Your task to perform on an android device: turn on translation in the chrome app Image 0: 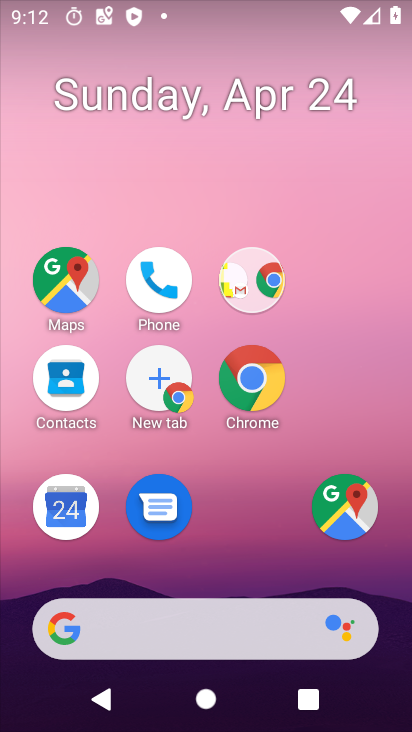
Step 0: drag from (287, 729) to (231, 87)
Your task to perform on an android device: turn on translation in the chrome app Image 1: 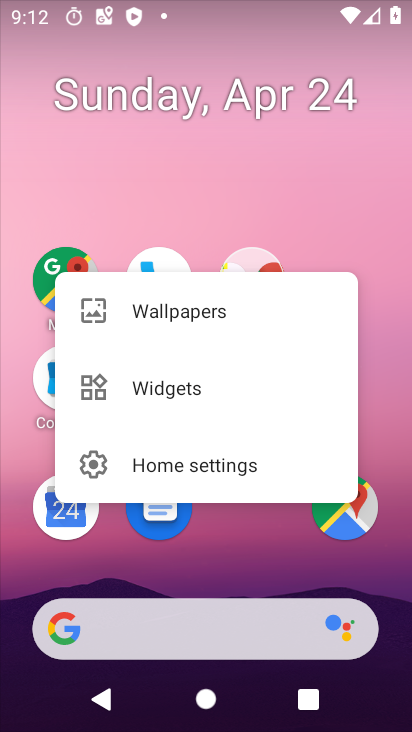
Step 1: click (253, 200)
Your task to perform on an android device: turn on translation in the chrome app Image 2: 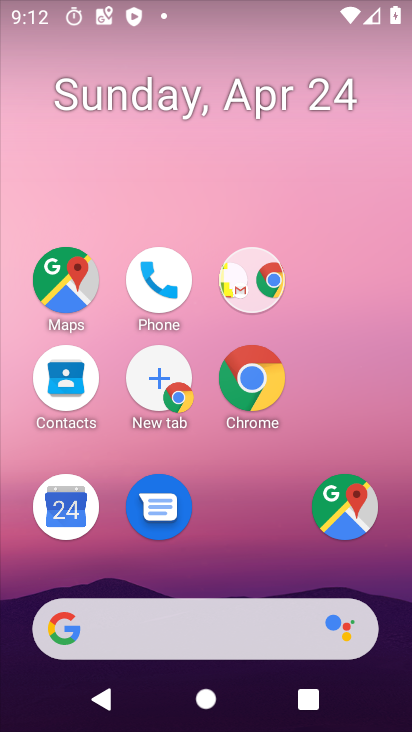
Step 2: click (257, 192)
Your task to perform on an android device: turn on translation in the chrome app Image 3: 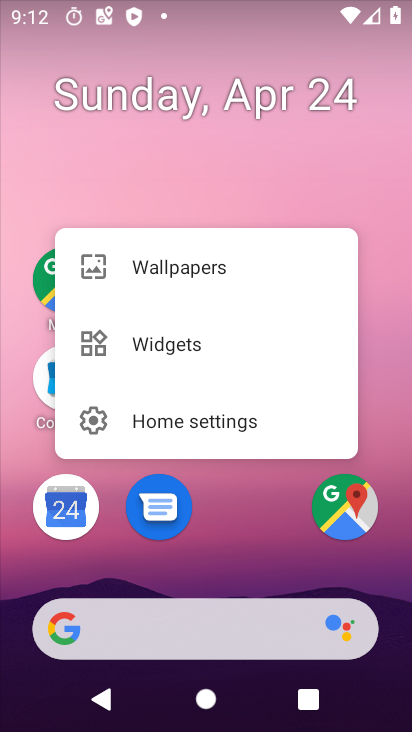
Step 3: drag from (253, 461) to (181, 98)
Your task to perform on an android device: turn on translation in the chrome app Image 4: 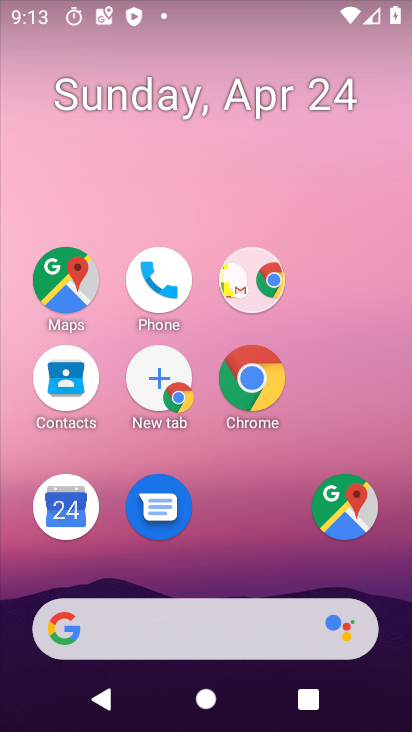
Step 4: drag from (245, 605) to (181, 16)
Your task to perform on an android device: turn on translation in the chrome app Image 5: 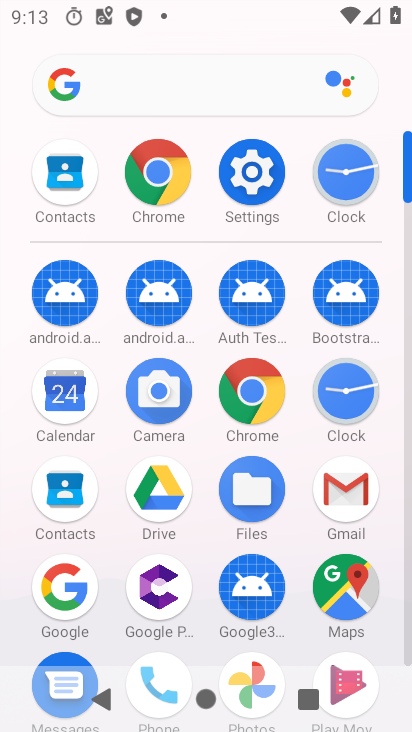
Step 5: click (157, 169)
Your task to perform on an android device: turn on translation in the chrome app Image 6: 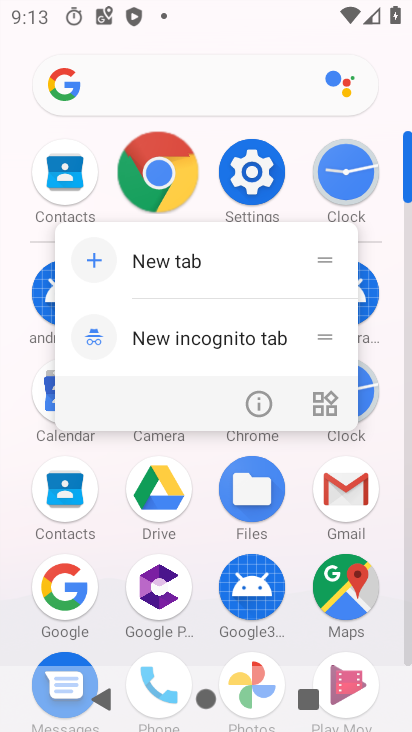
Step 6: click (157, 169)
Your task to perform on an android device: turn on translation in the chrome app Image 7: 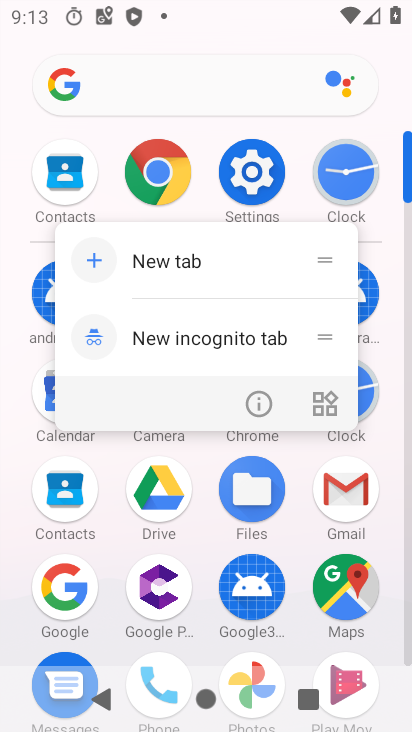
Step 7: click (166, 259)
Your task to perform on an android device: turn on translation in the chrome app Image 8: 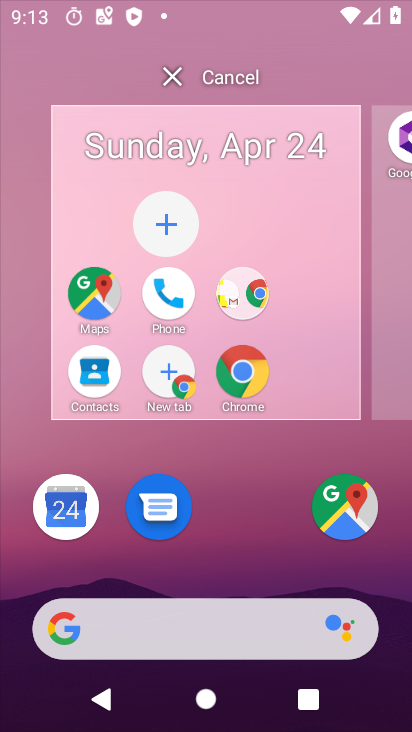
Step 8: click (166, 259)
Your task to perform on an android device: turn on translation in the chrome app Image 9: 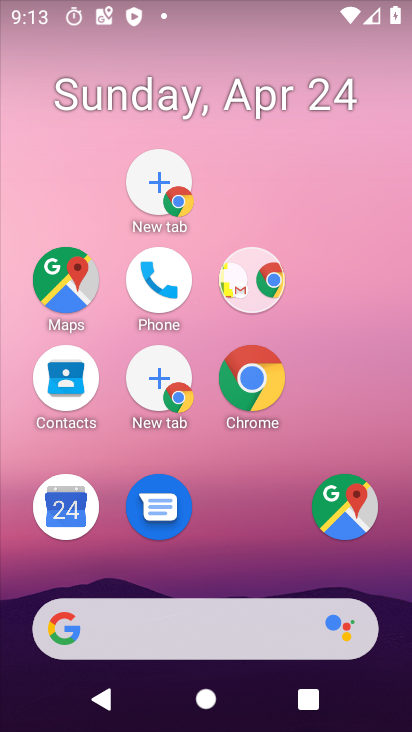
Step 9: drag from (262, 721) to (198, 69)
Your task to perform on an android device: turn on translation in the chrome app Image 10: 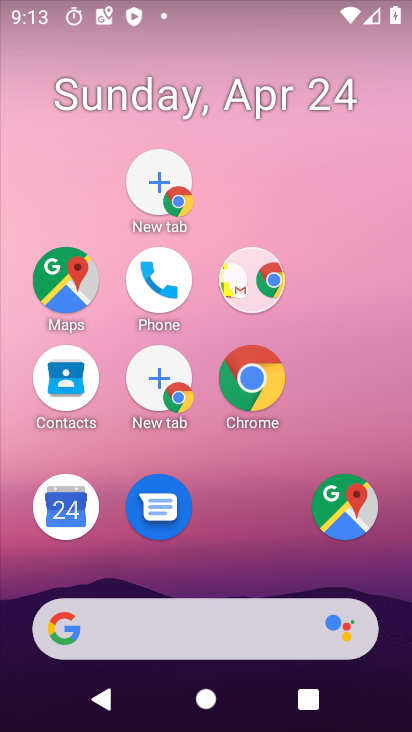
Step 10: drag from (252, 642) to (155, 139)
Your task to perform on an android device: turn on translation in the chrome app Image 11: 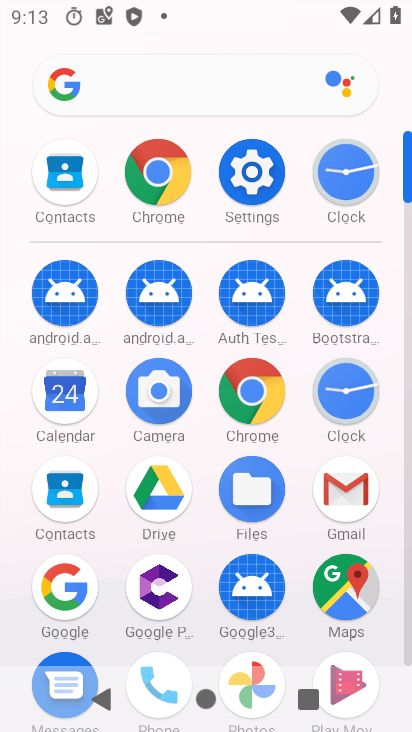
Step 11: click (150, 173)
Your task to perform on an android device: turn on translation in the chrome app Image 12: 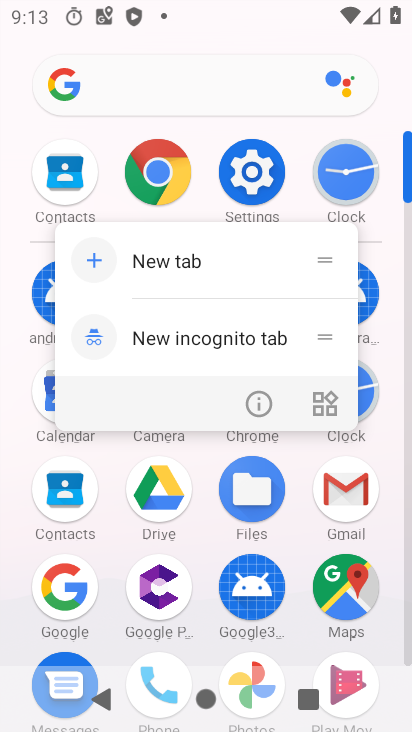
Step 12: click (159, 180)
Your task to perform on an android device: turn on translation in the chrome app Image 13: 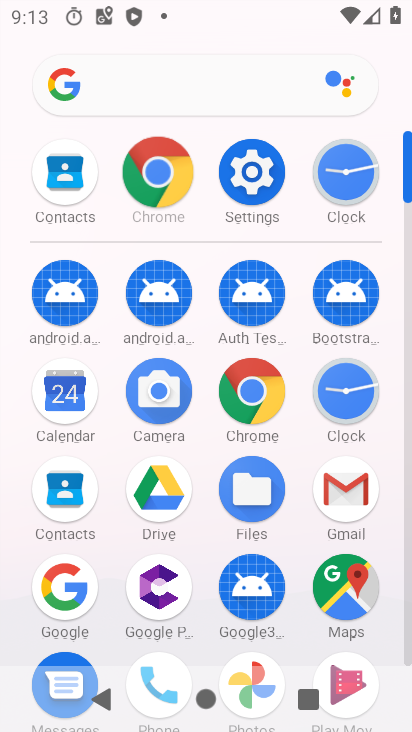
Step 13: click (160, 179)
Your task to perform on an android device: turn on translation in the chrome app Image 14: 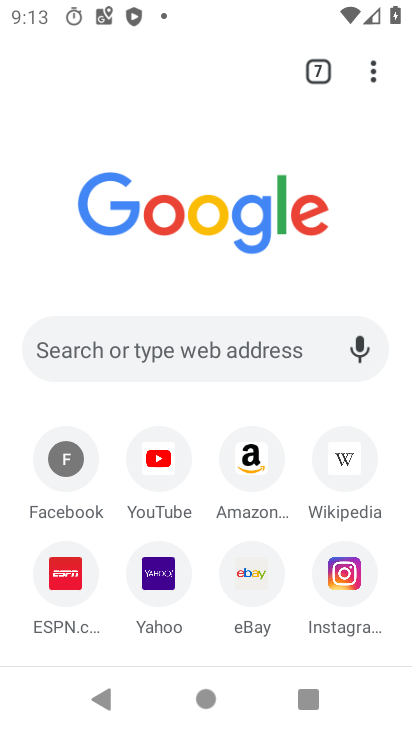
Step 14: drag from (370, 76) to (105, 498)
Your task to perform on an android device: turn on translation in the chrome app Image 15: 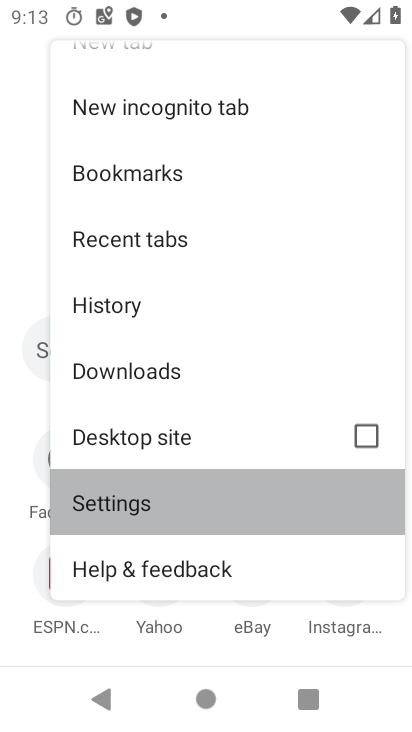
Step 15: click (106, 499)
Your task to perform on an android device: turn on translation in the chrome app Image 16: 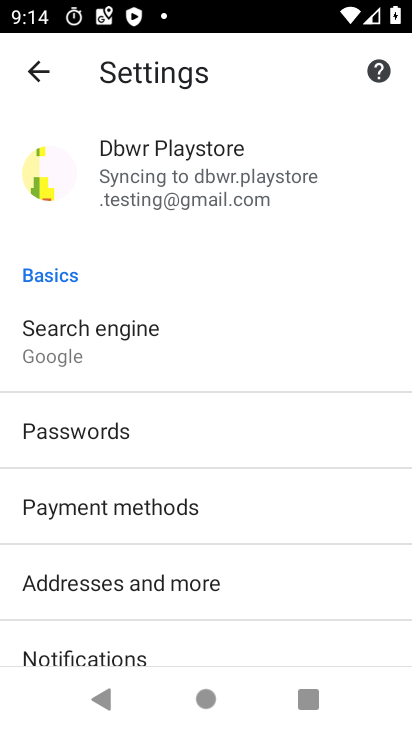
Step 16: drag from (169, 591) to (158, 111)
Your task to perform on an android device: turn on translation in the chrome app Image 17: 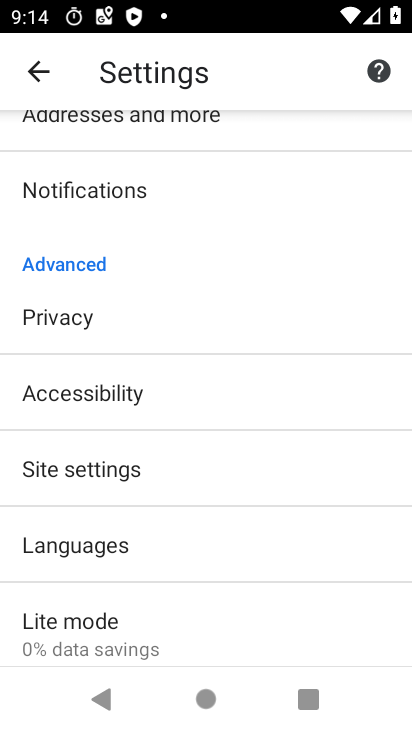
Step 17: click (66, 546)
Your task to perform on an android device: turn on translation in the chrome app Image 18: 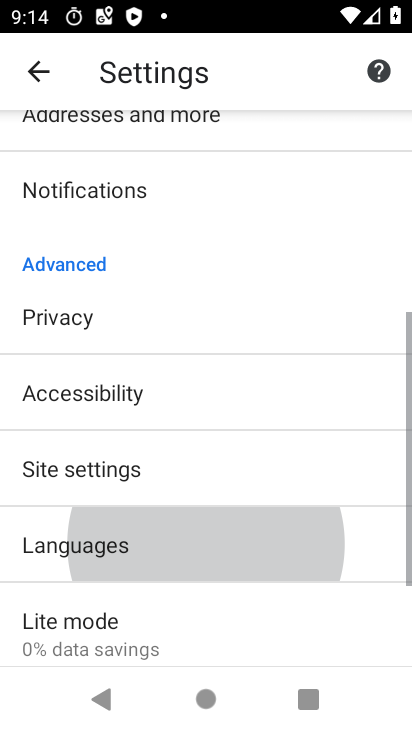
Step 18: click (66, 546)
Your task to perform on an android device: turn on translation in the chrome app Image 19: 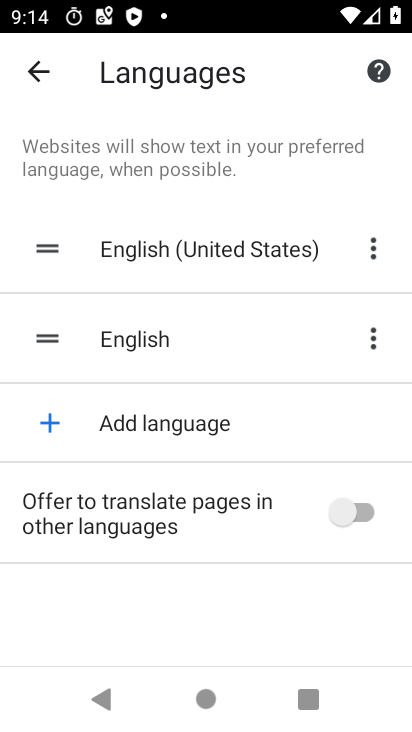
Step 19: click (340, 512)
Your task to perform on an android device: turn on translation in the chrome app Image 20: 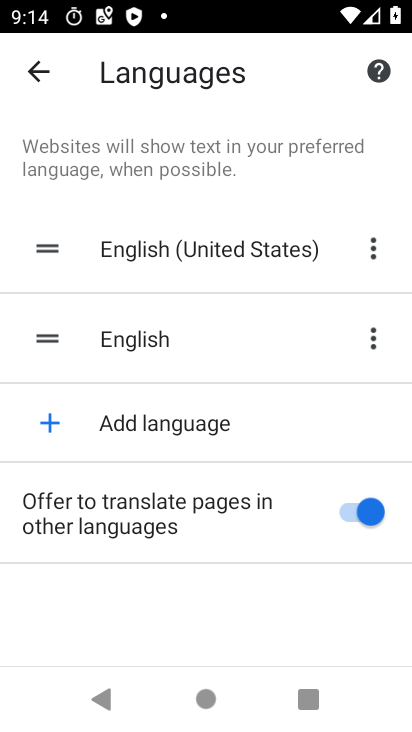
Step 20: task complete